Your task to perform on an android device: turn off notifications settings in the gmail app Image 0: 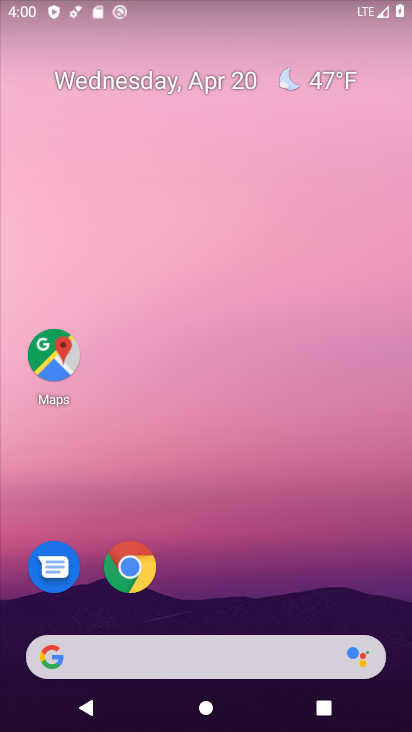
Step 0: drag from (258, 558) to (0, 434)
Your task to perform on an android device: turn off notifications settings in the gmail app Image 1: 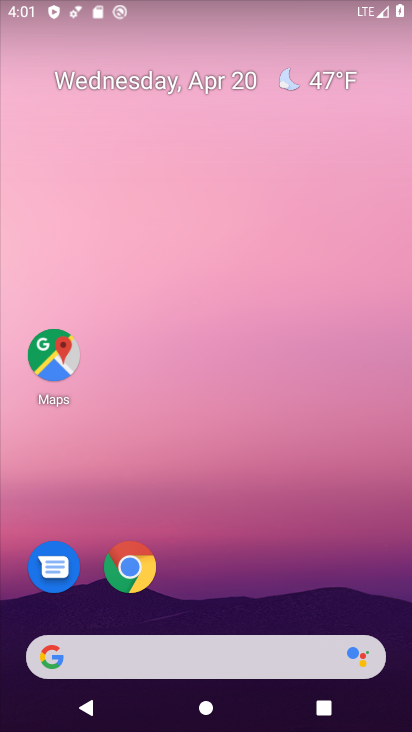
Step 1: drag from (410, 692) to (30, 236)
Your task to perform on an android device: turn off notifications settings in the gmail app Image 2: 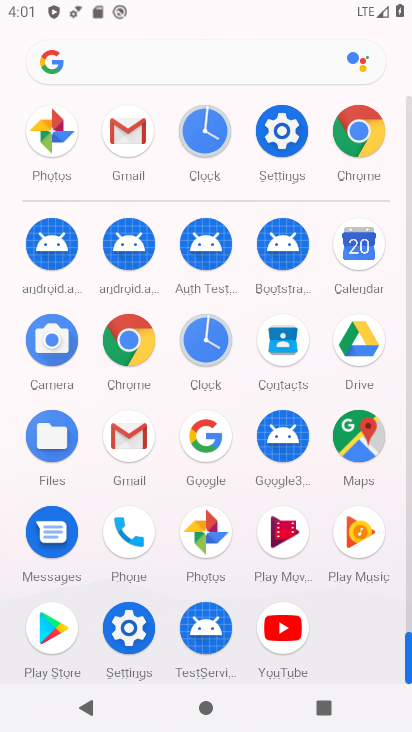
Step 2: drag from (2, 525) to (11, 313)
Your task to perform on an android device: turn off notifications settings in the gmail app Image 3: 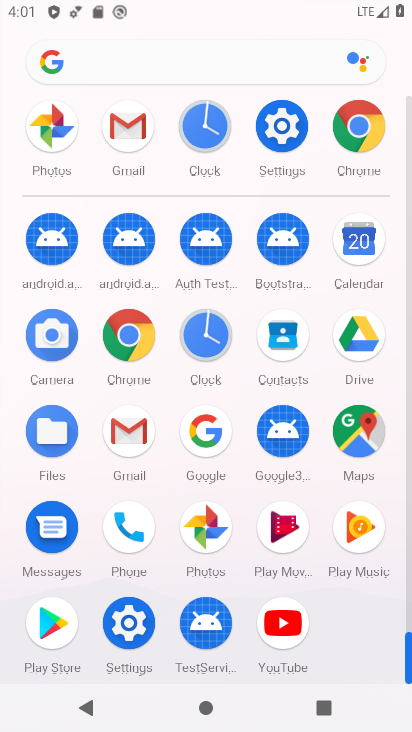
Step 3: click (127, 421)
Your task to perform on an android device: turn off notifications settings in the gmail app Image 4: 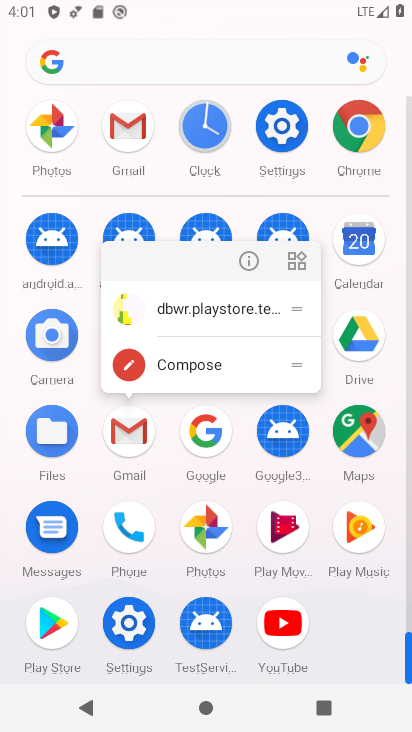
Step 4: click (127, 421)
Your task to perform on an android device: turn off notifications settings in the gmail app Image 5: 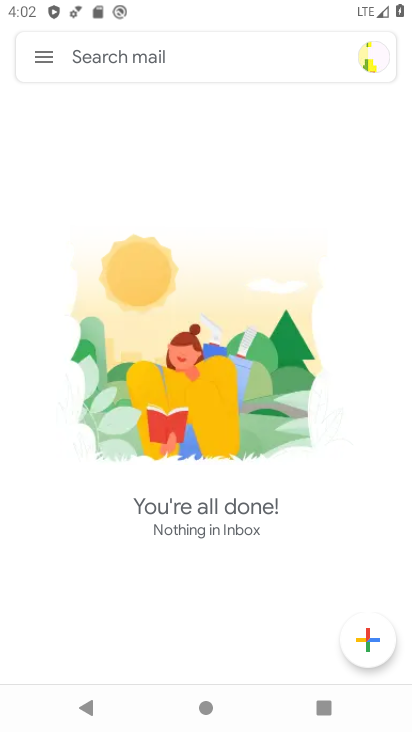
Step 5: click (46, 47)
Your task to perform on an android device: turn off notifications settings in the gmail app Image 6: 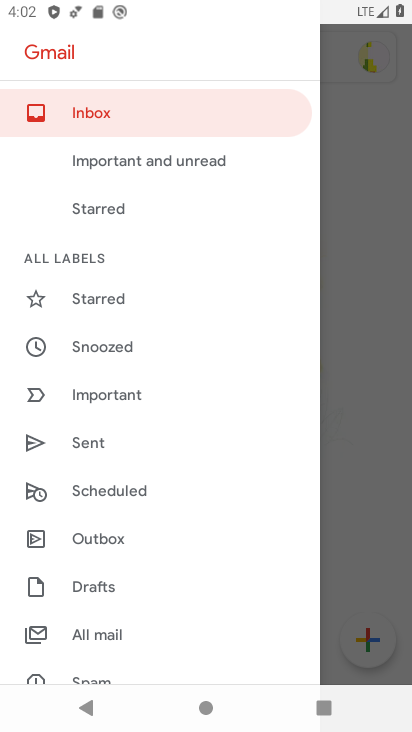
Step 6: drag from (162, 594) to (148, 158)
Your task to perform on an android device: turn off notifications settings in the gmail app Image 7: 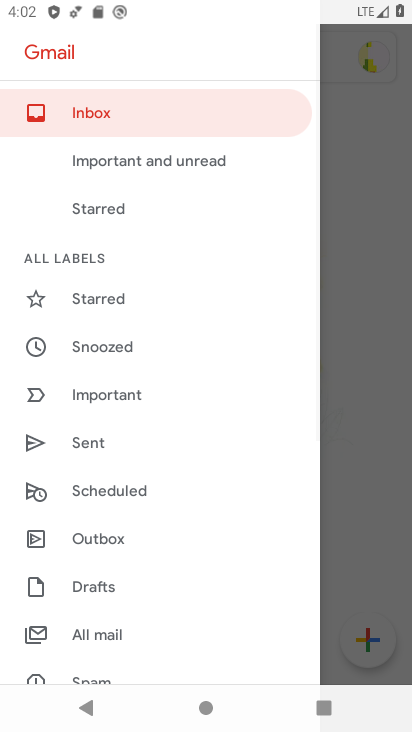
Step 7: drag from (138, 606) to (145, 187)
Your task to perform on an android device: turn off notifications settings in the gmail app Image 8: 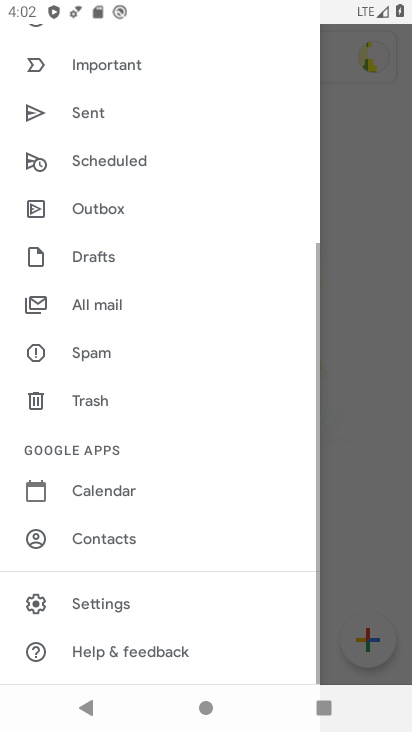
Step 8: click (118, 601)
Your task to perform on an android device: turn off notifications settings in the gmail app Image 9: 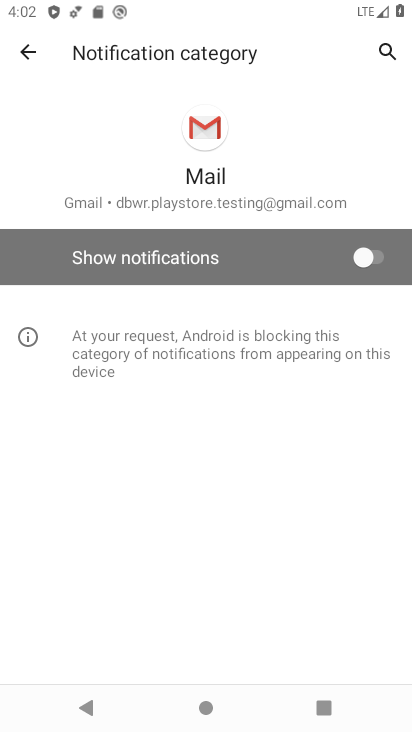
Step 9: task complete